Your task to perform on an android device: Open Chrome and go to settings Image 0: 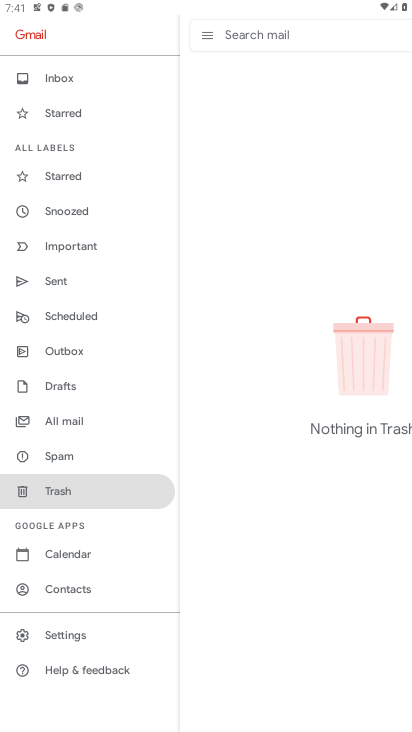
Step 0: press home button
Your task to perform on an android device: Open Chrome and go to settings Image 1: 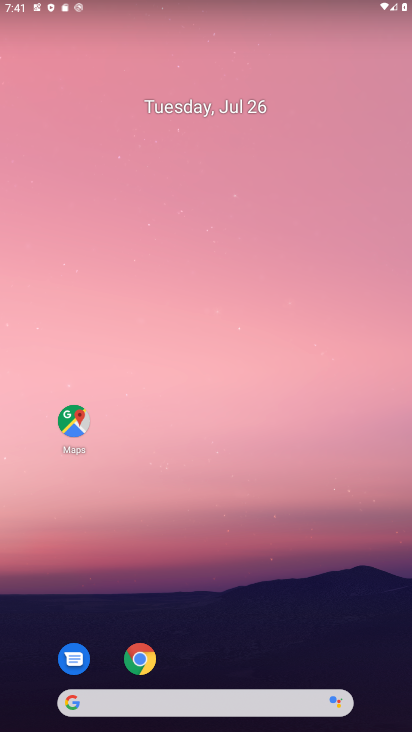
Step 1: click (141, 661)
Your task to perform on an android device: Open Chrome and go to settings Image 2: 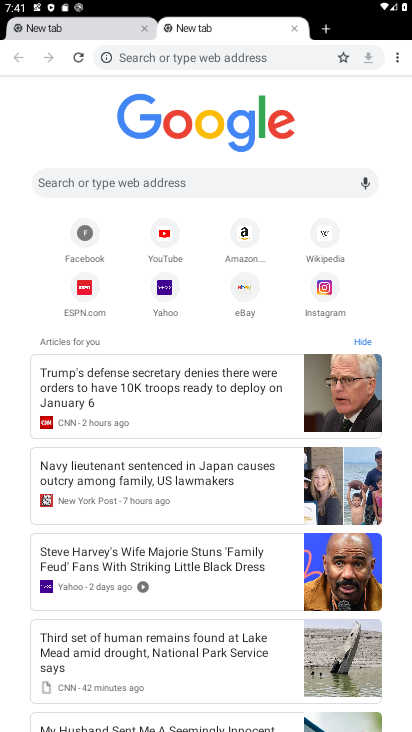
Step 2: click (401, 59)
Your task to perform on an android device: Open Chrome and go to settings Image 3: 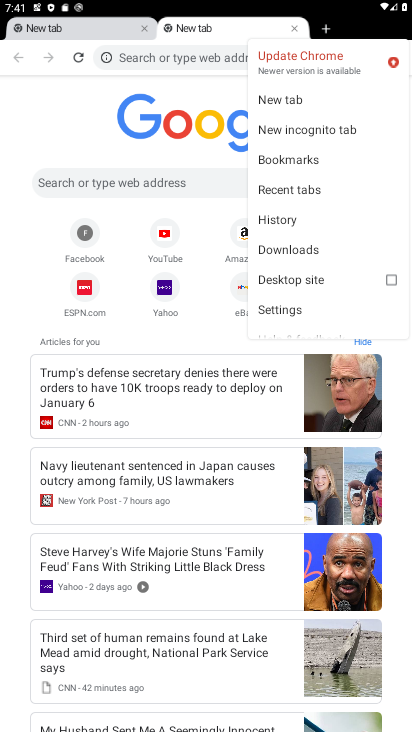
Step 3: click (265, 302)
Your task to perform on an android device: Open Chrome and go to settings Image 4: 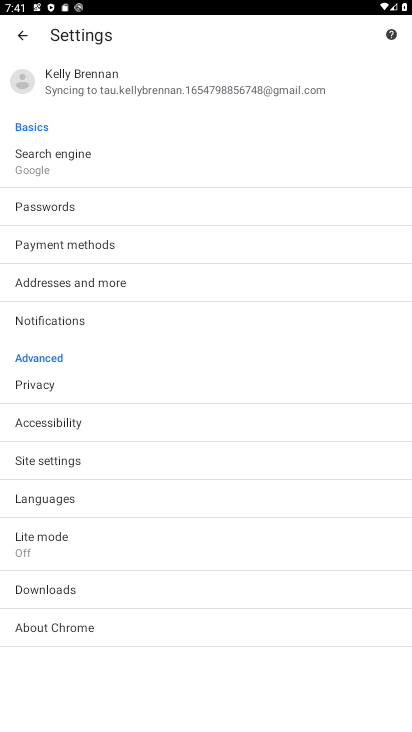
Step 4: task complete